Your task to perform on an android device: delete a single message in the gmail app Image 0: 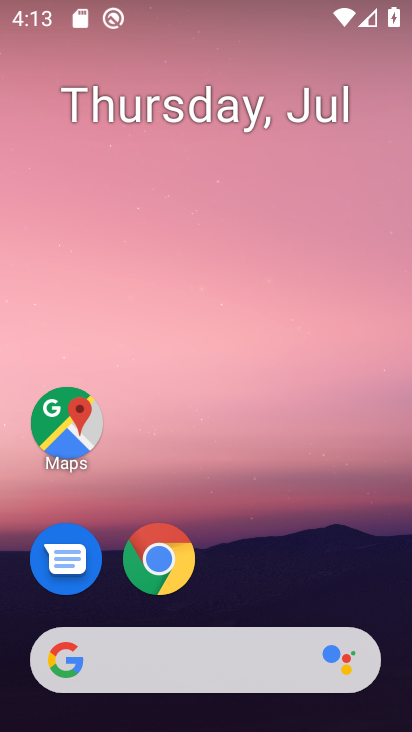
Step 0: drag from (222, 664) to (235, 310)
Your task to perform on an android device: delete a single message in the gmail app Image 1: 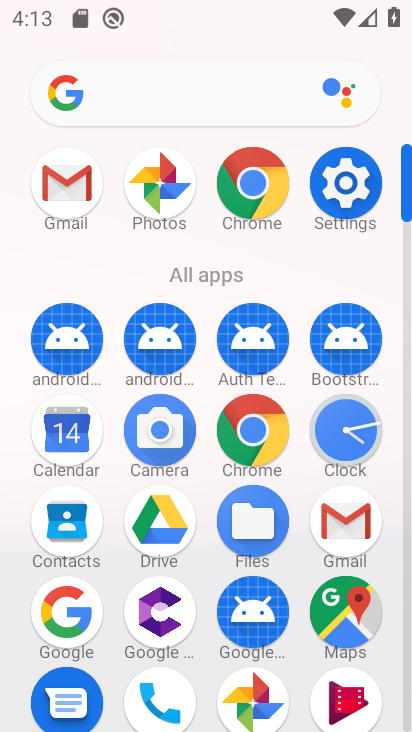
Step 1: click (343, 544)
Your task to perform on an android device: delete a single message in the gmail app Image 2: 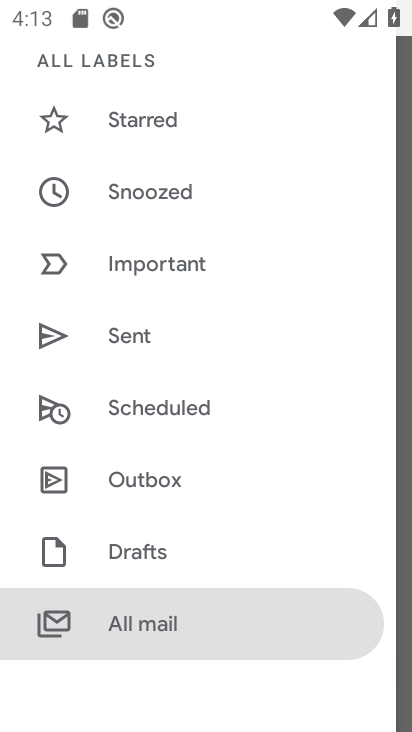
Step 2: click (218, 608)
Your task to perform on an android device: delete a single message in the gmail app Image 3: 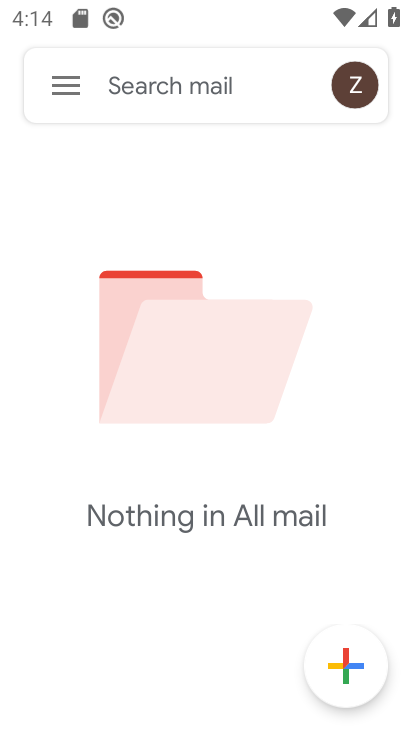
Step 3: task complete